Your task to perform on an android device: What's on my calendar today? Image 0: 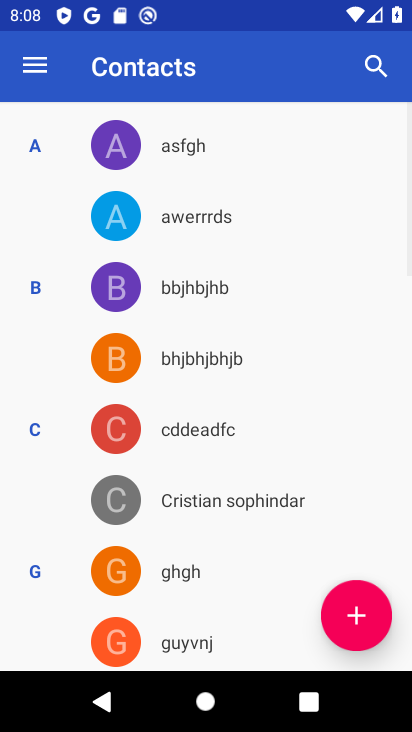
Step 0: press home button
Your task to perform on an android device: What's on my calendar today? Image 1: 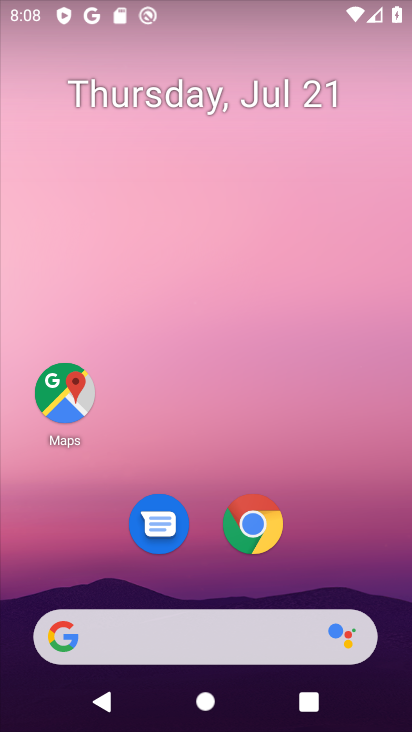
Step 1: drag from (224, 638) to (338, 146)
Your task to perform on an android device: What's on my calendar today? Image 2: 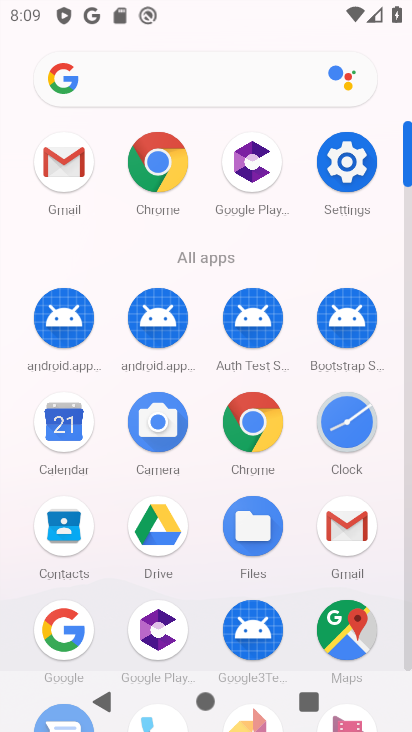
Step 2: click (54, 419)
Your task to perform on an android device: What's on my calendar today? Image 3: 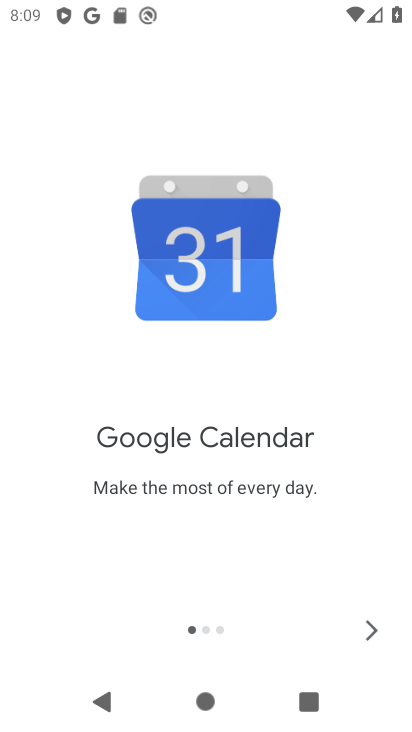
Step 3: click (364, 637)
Your task to perform on an android device: What's on my calendar today? Image 4: 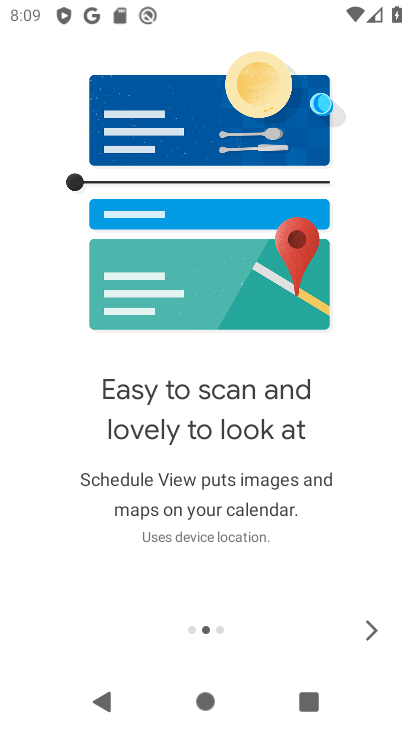
Step 4: click (357, 631)
Your task to perform on an android device: What's on my calendar today? Image 5: 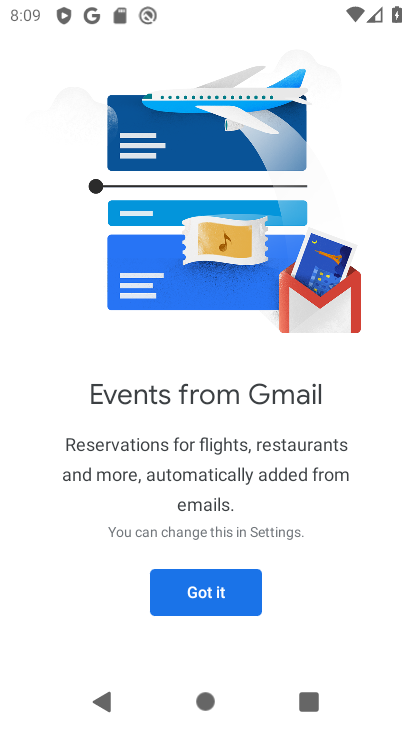
Step 5: click (228, 600)
Your task to perform on an android device: What's on my calendar today? Image 6: 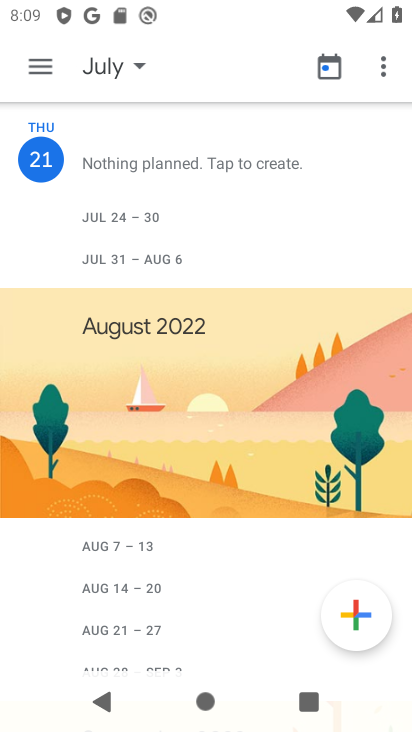
Step 6: task complete